Your task to perform on an android device: change alarm snooze length Image 0: 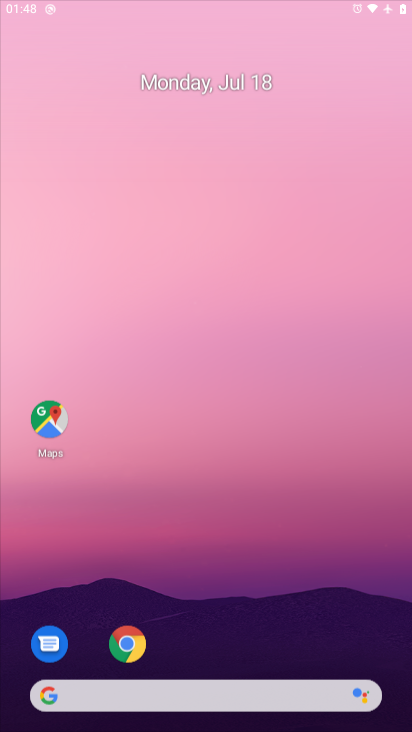
Step 0: press home button
Your task to perform on an android device: change alarm snooze length Image 1: 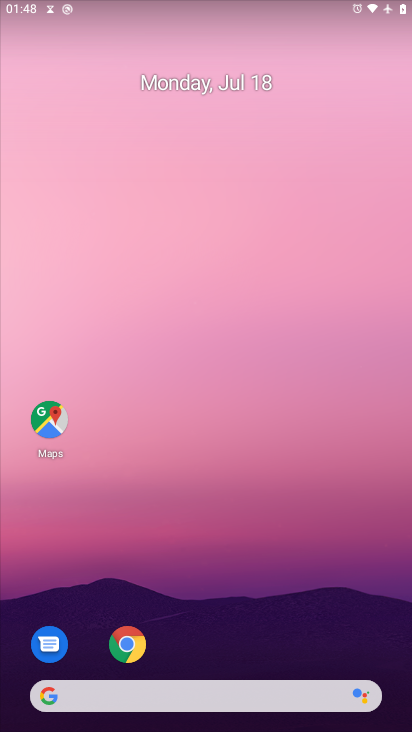
Step 1: drag from (207, 660) to (262, 134)
Your task to perform on an android device: change alarm snooze length Image 2: 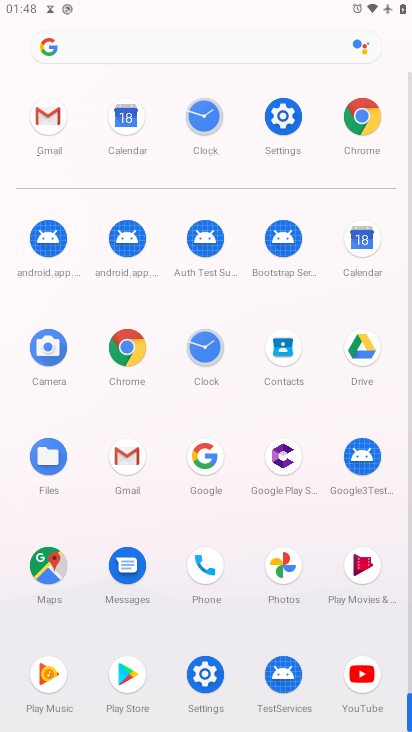
Step 2: click (202, 353)
Your task to perform on an android device: change alarm snooze length Image 3: 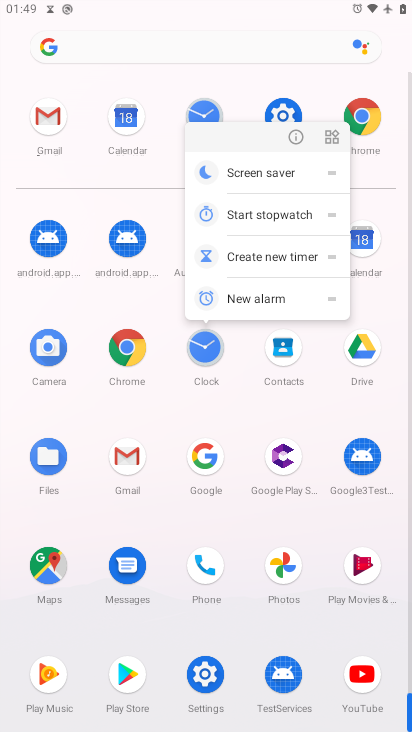
Step 3: click (206, 114)
Your task to perform on an android device: change alarm snooze length Image 4: 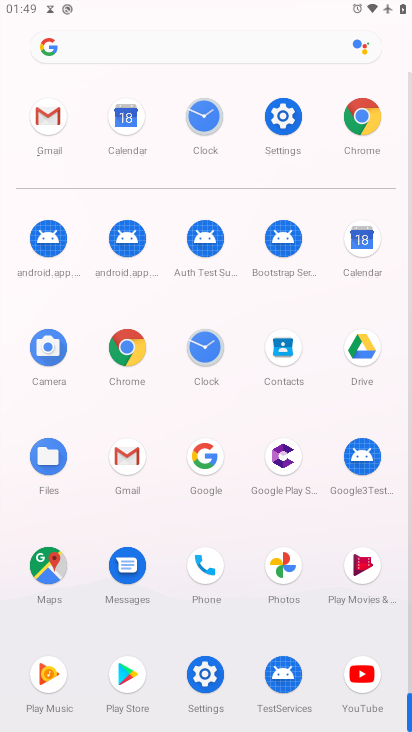
Step 4: click (196, 124)
Your task to perform on an android device: change alarm snooze length Image 5: 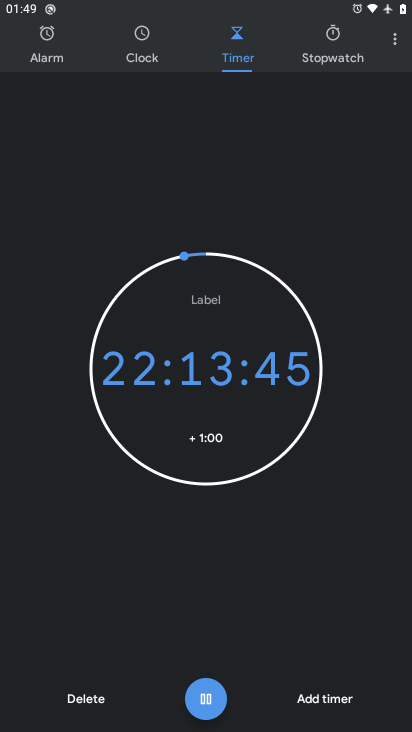
Step 5: click (390, 41)
Your task to perform on an android device: change alarm snooze length Image 6: 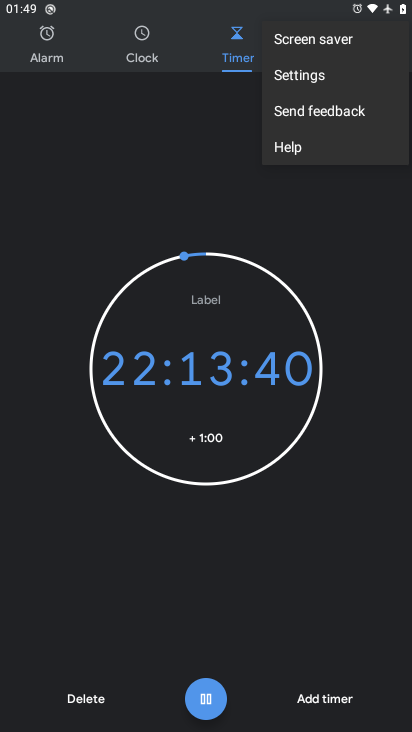
Step 6: click (291, 79)
Your task to perform on an android device: change alarm snooze length Image 7: 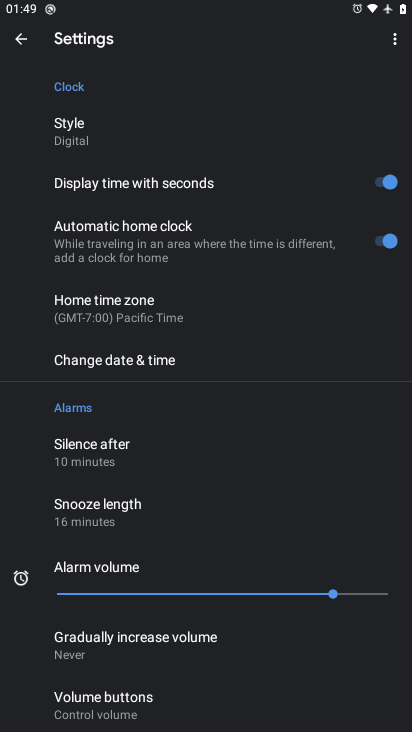
Step 7: click (92, 509)
Your task to perform on an android device: change alarm snooze length Image 8: 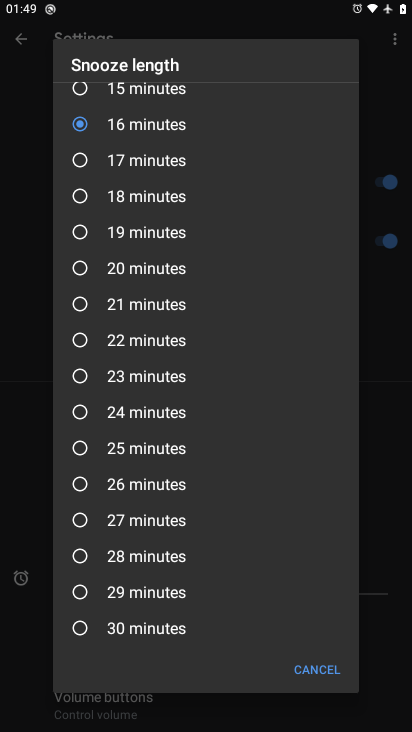
Step 8: click (78, 93)
Your task to perform on an android device: change alarm snooze length Image 9: 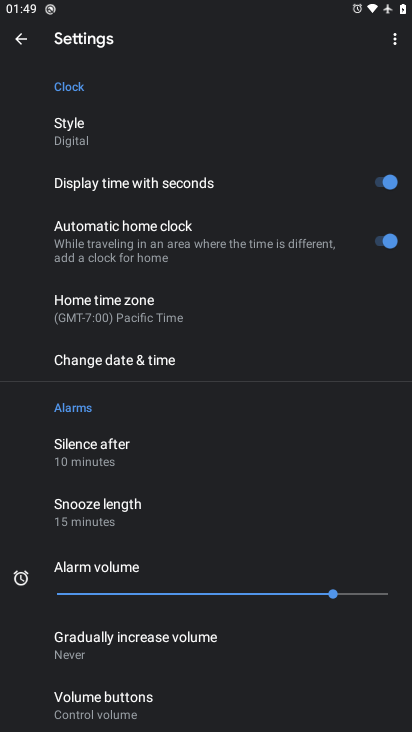
Step 9: task complete